Your task to perform on an android device: turn smart compose on in the gmail app Image 0: 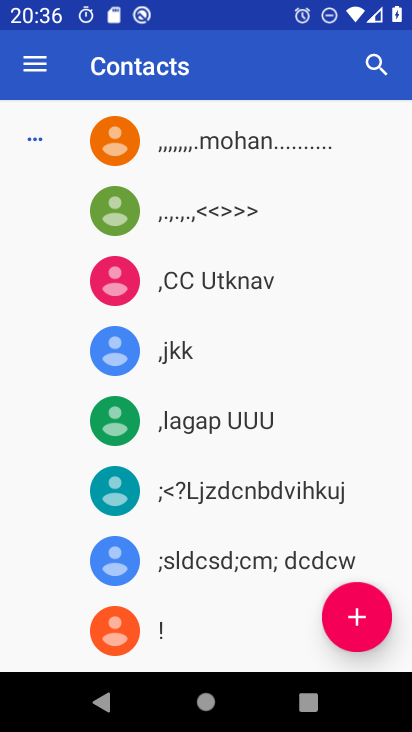
Step 0: press home button
Your task to perform on an android device: turn smart compose on in the gmail app Image 1: 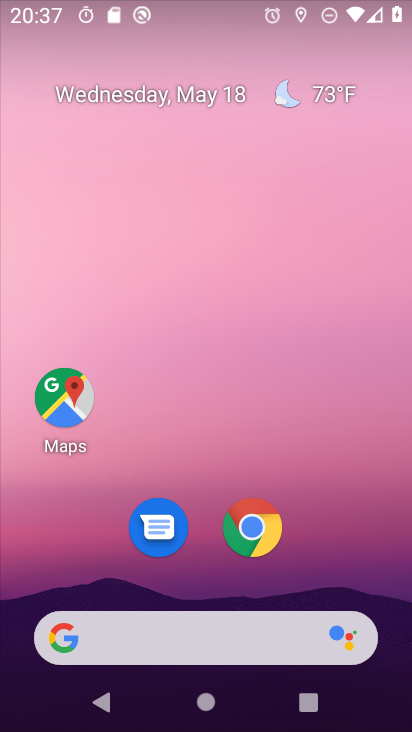
Step 1: drag from (399, 696) to (391, 323)
Your task to perform on an android device: turn smart compose on in the gmail app Image 2: 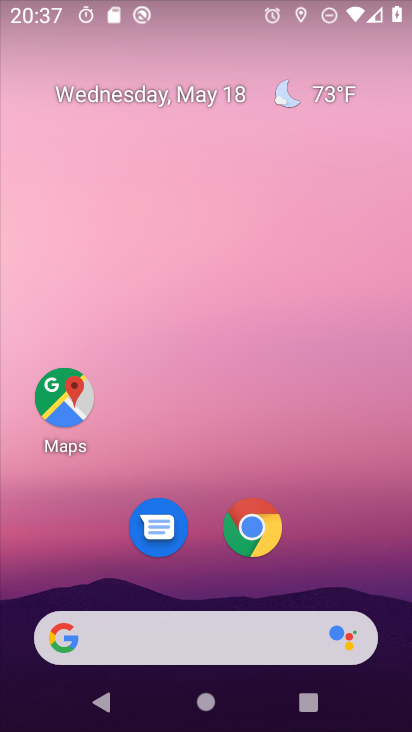
Step 2: drag from (400, 700) to (363, 174)
Your task to perform on an android device: turn smart compose on in the gmail app Image 3: 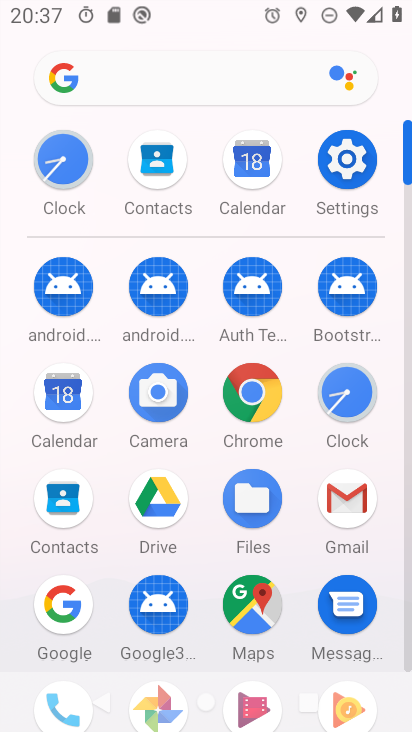
Step 3: click (334, 501)
Your task to perform on an android device: turn smart compose on in the gmail app Image 4: 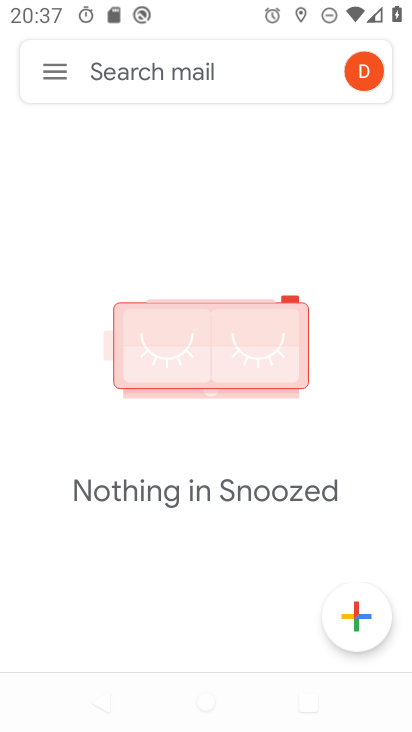
Step 4: click (67, 69)
Your task to perform on an android device: turn smart compose on in the gmail app Image 5: 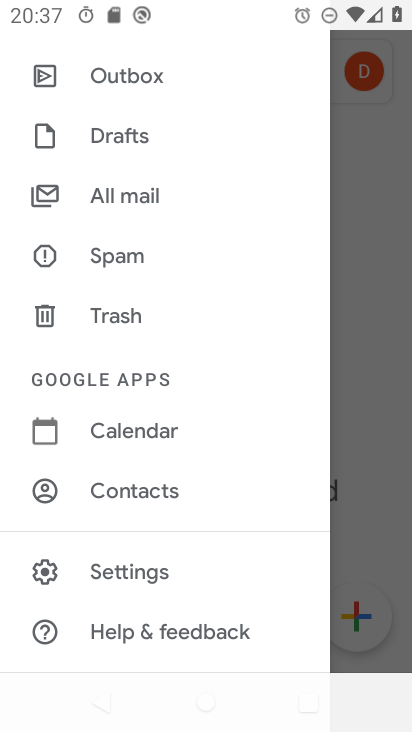
Step 5: click (157, 577)
Your task to perform on an android device: turn smart compose on in the gmail app Image 6: 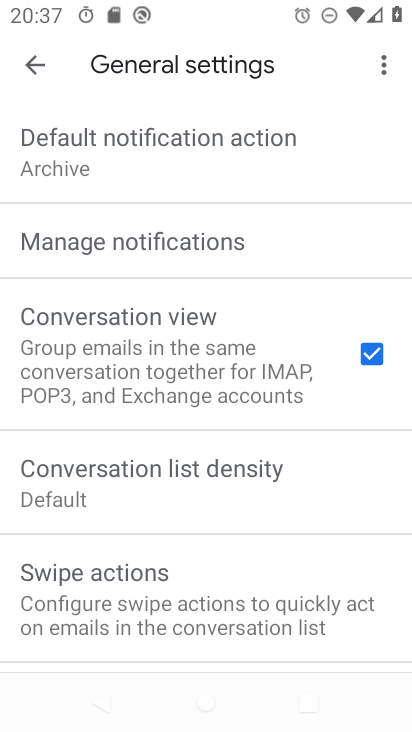
Step 6: click (26, 65)
Your task to perform on an android device: turn smart compose on in the gmail app Image 7: 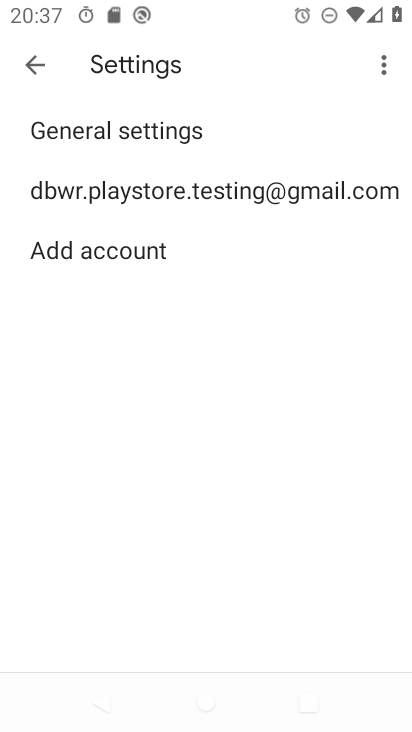
Step 7: click (93, 189)
Your task to perform on an android device: turn smart compose on in the gmail app Image 8: 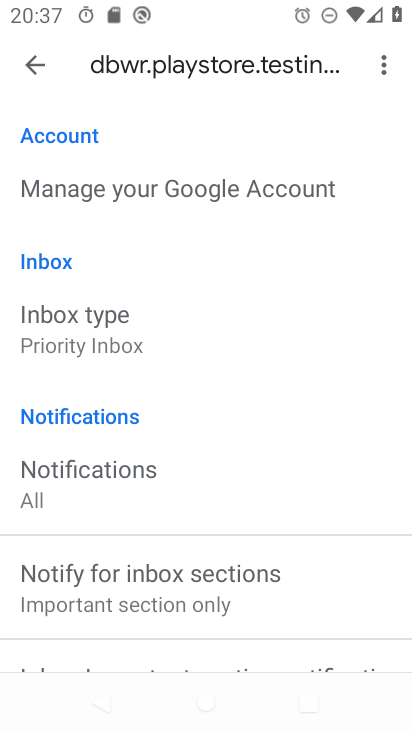
Step 8: task complete